Your task to perform on an android device: toggle translation in the chrome app Image 0: 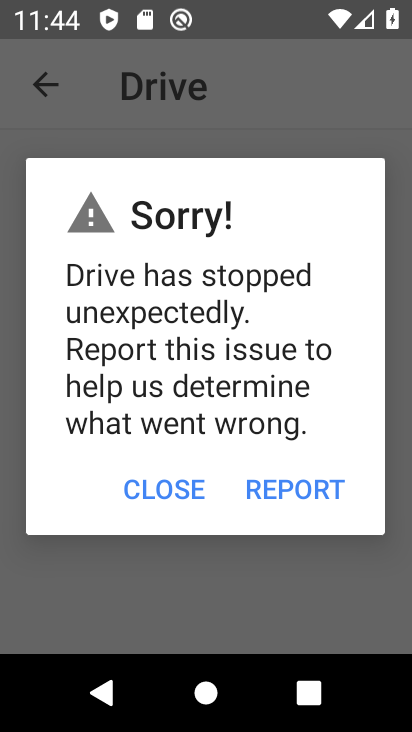
Step 0: press home button
Your task to perform on an android device: toggle translation in the chrome app Image 1: 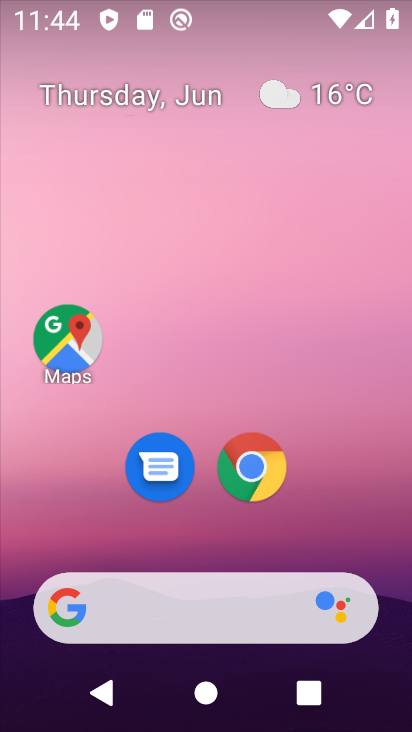
Step 1: click (253, 465)
Your task to perform on an android device: toggle translation in the chrome app Image 2: 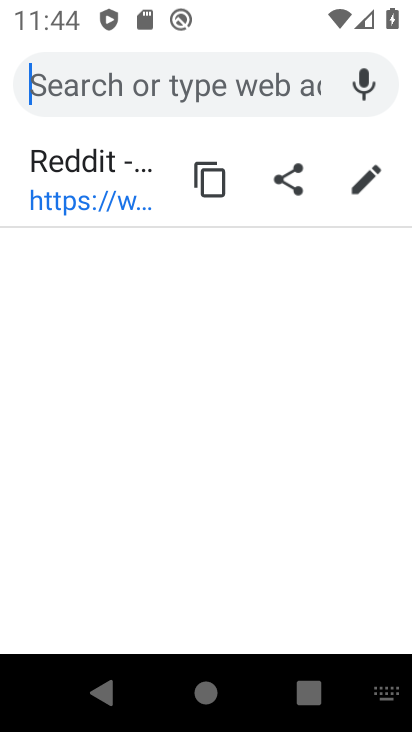
Step 2: press back button
Your task to perform on an android device: toggle translation in the chrome app Image 3: 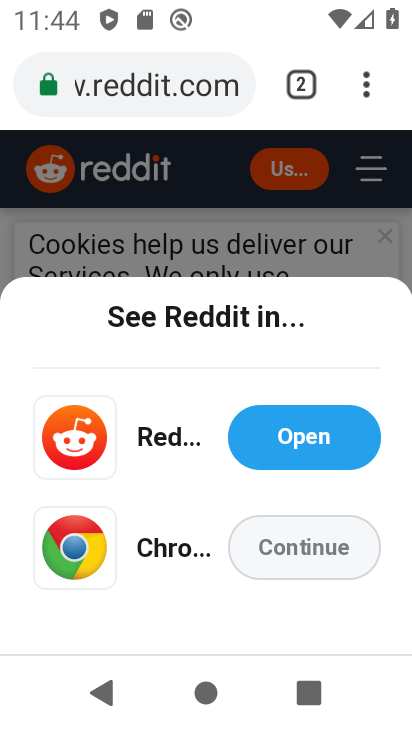
Step 3: click (362, 95)
Your task to perform on an android device: toggle translation in the chrome app Image 4: 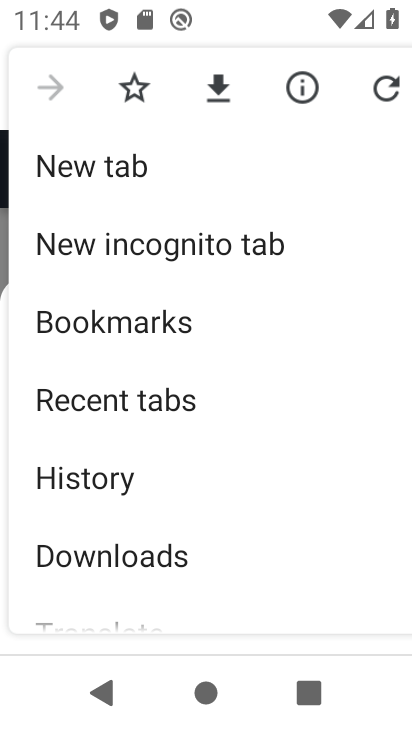
Step 4: drag from (224, 583) to (327, 83)
Your task to perform on an android device: toggle translation in the chrome app Image 5: 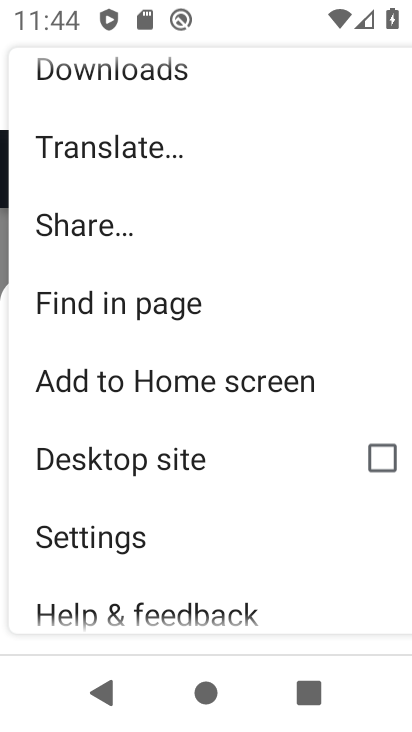
Step 5: click (82, 544)
Your task to perform on an android device: toggle translation in the chrome app Image 6: 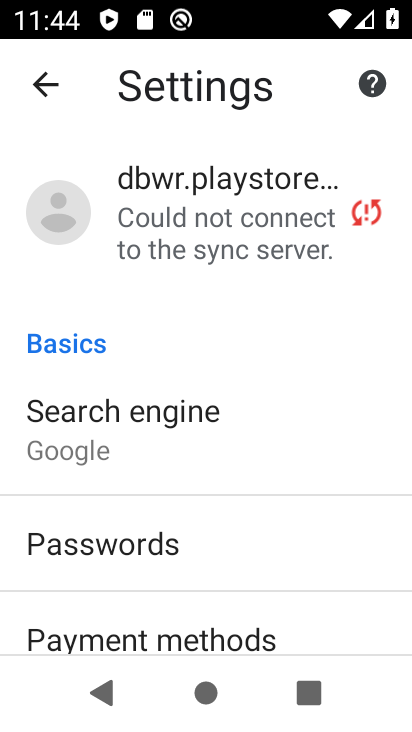
Step 6: drag from (273, 563) to (264, 170)
Your task to perform on an android device: toggle translation in the chrome app Image 7: 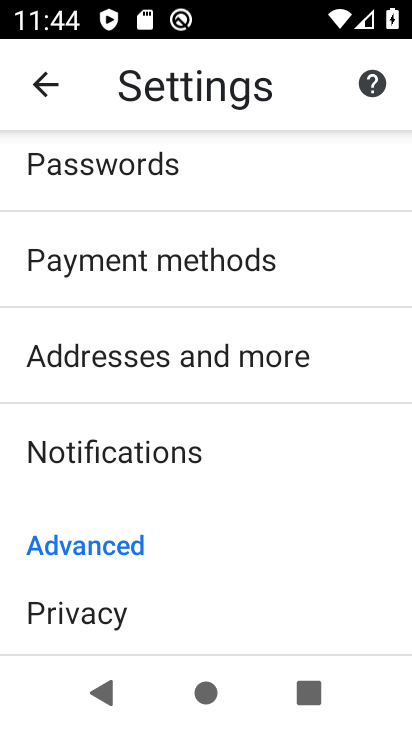
Step 7: drag from (259, 636) to (296, 176)
Your task to perform on an android device: toggle translation in the chrome app Image 8: 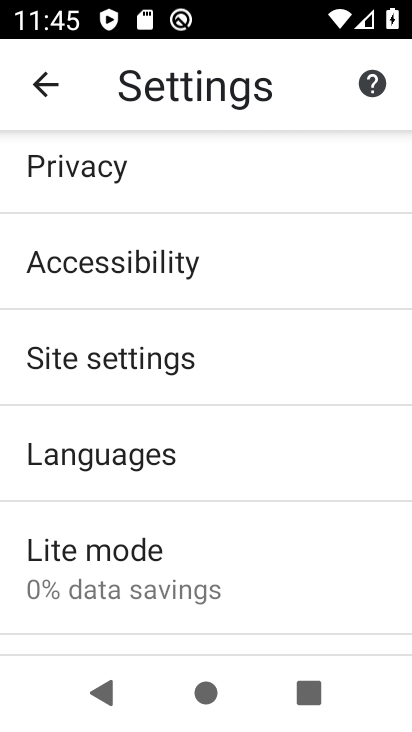
Step 8: click (89, 450)
Your task to perform on an android device: toggle translation in the chrome app Image 9: 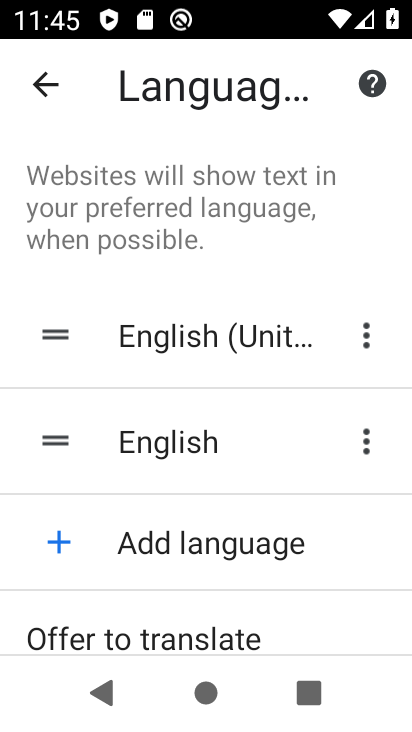
Step 9: drag from (319, 607) to (322, 192)
Your task to perform on an android device: toggle translation in the chrome app Image 10: 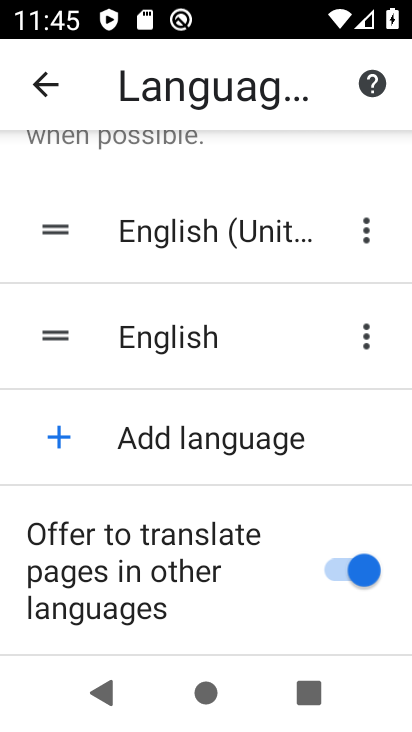
Step 10: click (328, 566)
Your task to perform on an android device: toggle translation in the chrome app Image 11: 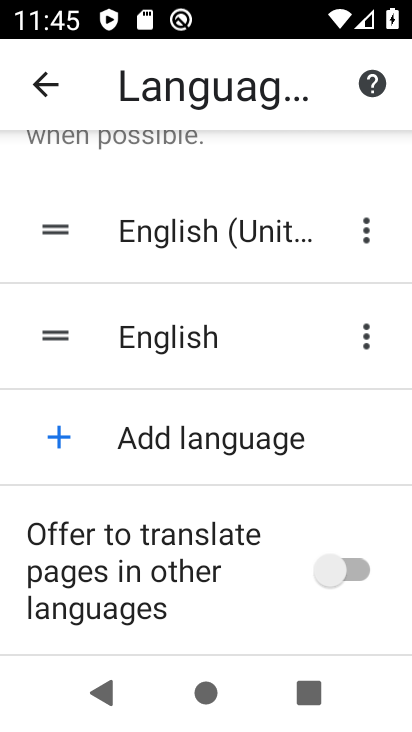
Step 11: task complete